Your task to perform on an android device: set the timer Image 0: 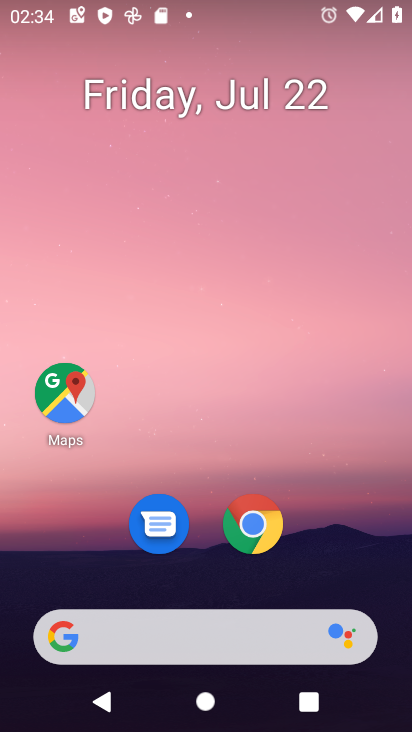
Step 0: press home button
Your task to perform on an android device: set the timer Image 1: 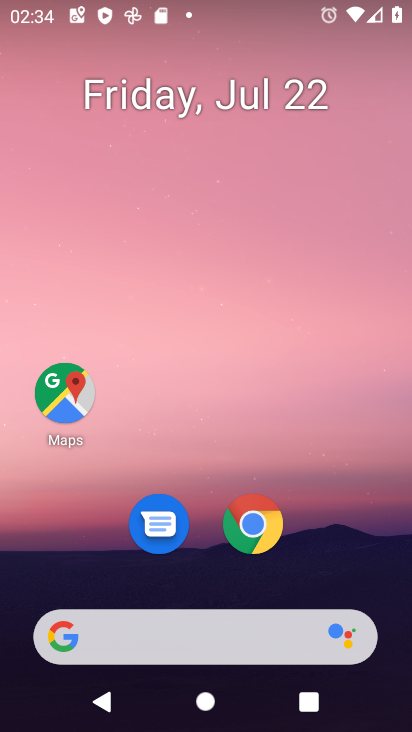
Step 1: drag from (260, 626) to (377, 24)
Your task to perform on an android device: set the timer Image 2: 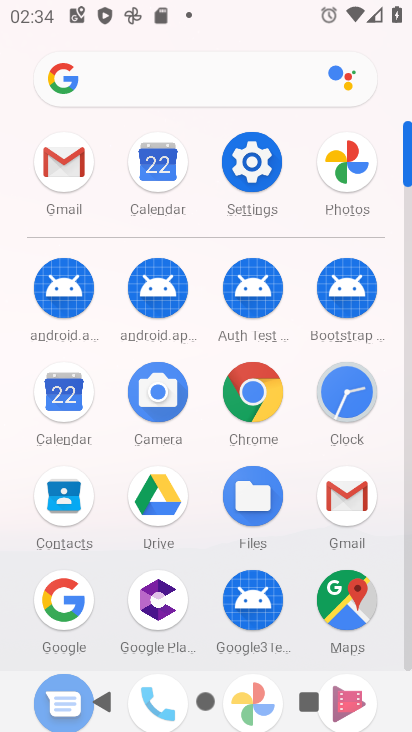
Step 2: click (346, 401)
Your task to perform on an android device: set the timer Image 3: 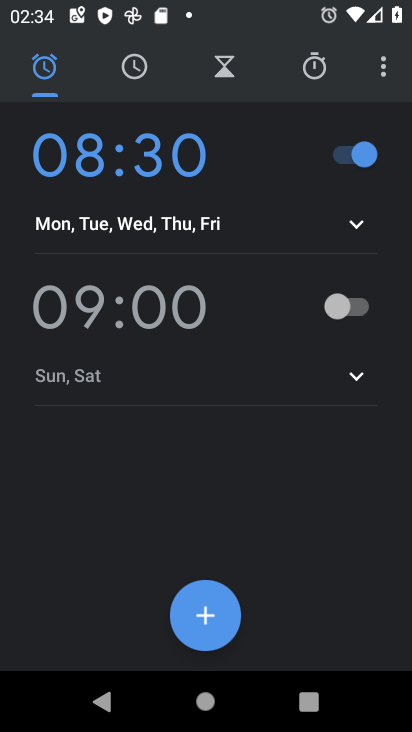
Step 3: click (224, 69)
Your task to perform on an android device: set the timer Image 4: 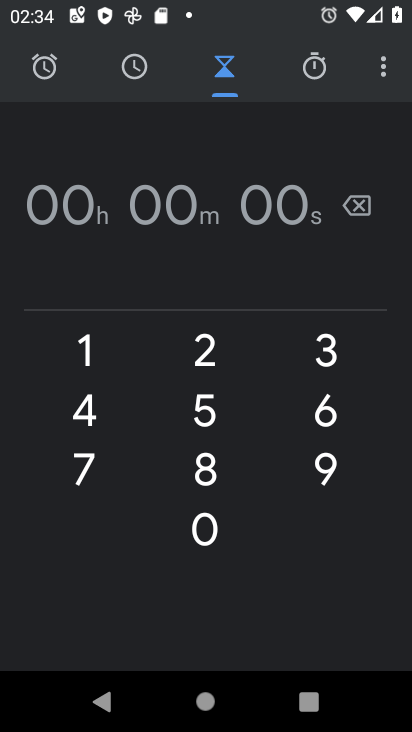
Step 4: click (93, 412)
Your task to perform on an android device: set the timer Image 5: 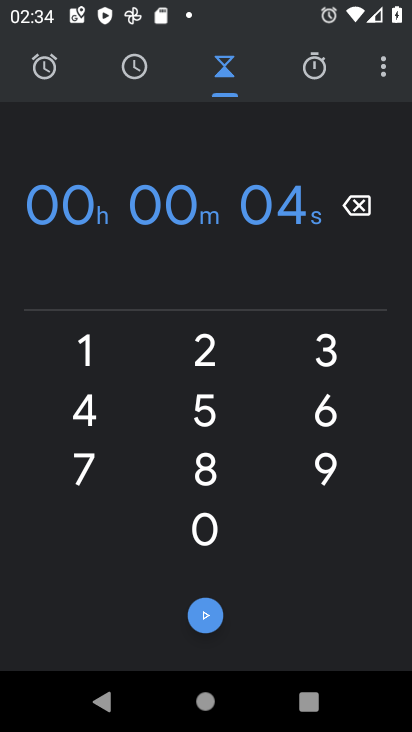
Step 5: click (210, 360)
Your task to perform on an android device: set the timer Image 6: 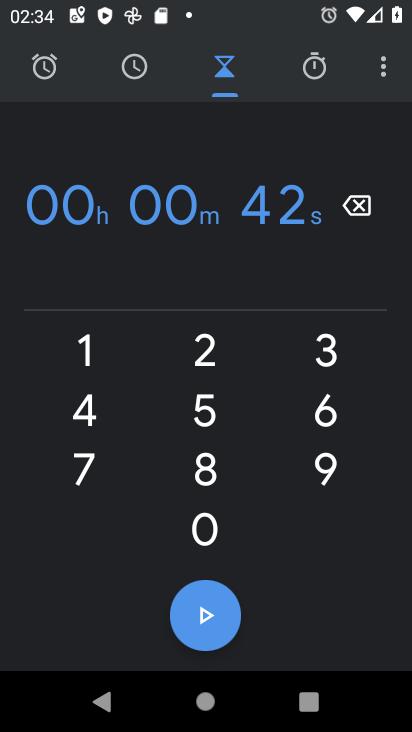
Step 6: click (197, 624)
Your task to perform on an android device: set the timer Image 7: 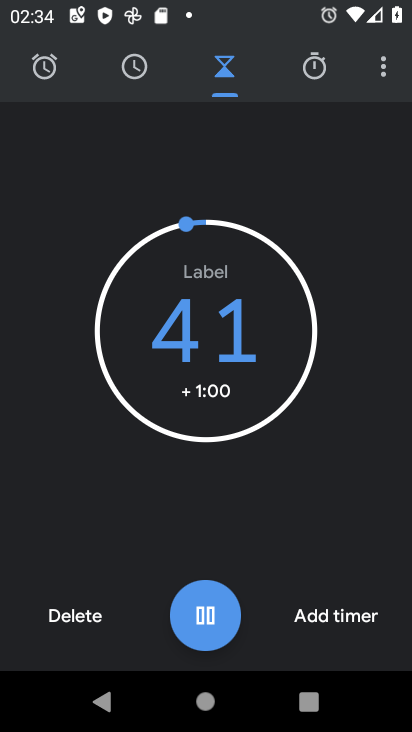
Step 7: click (205, 623)
Your task to perform on an android device: set the timer Image 8: 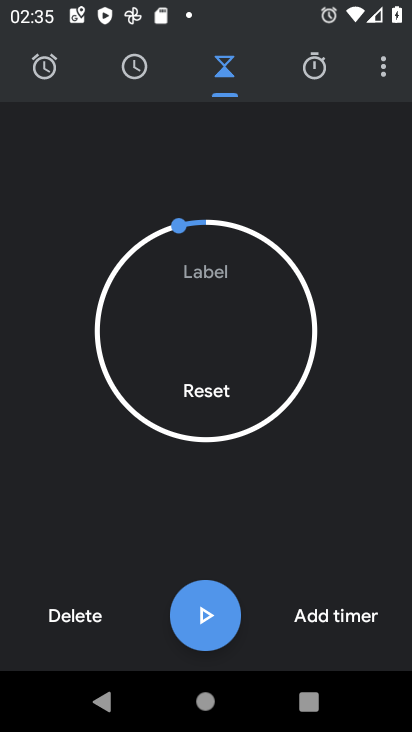
Step 8: task complete